Your task to perform on an android device: check out phone information Image 0: 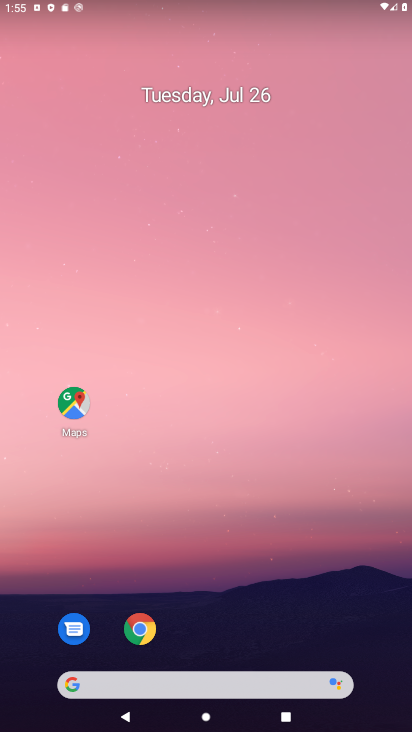
Step 0: drag from (381, 659) to (299, 327)
Your task to perform on an android device: check out phone information Image 1: 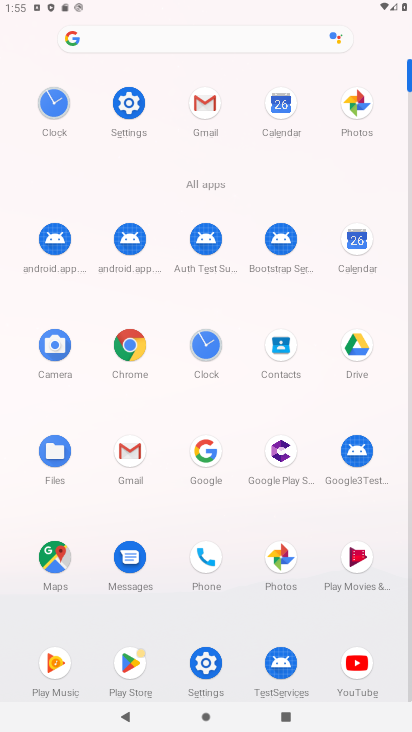
Step 1: click (203, 665)
Your task to perform on an android device: check out phone information Image 2: 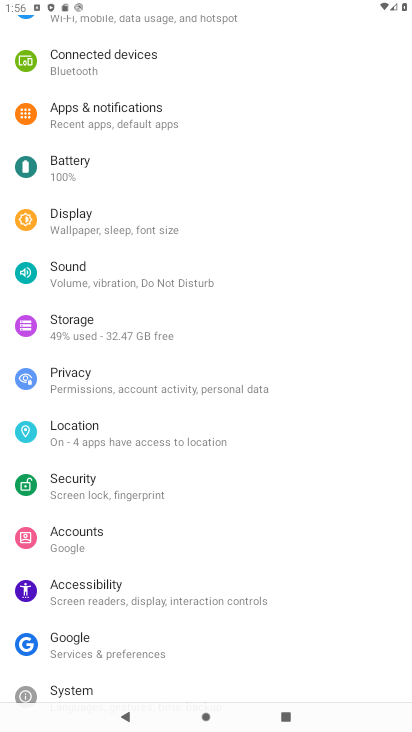
Step 2: drag from (207, 661) to (247, 313)
Your task to perform on an android device: check out phone information Image 3: 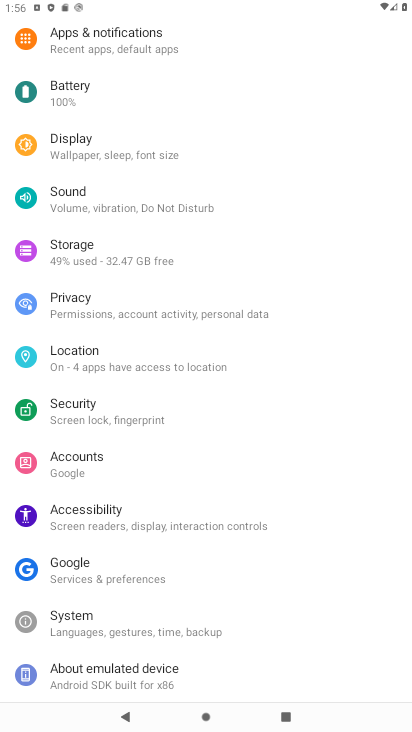
Step 3: click (106, 673)
Your task to perform on an android device: check out phone information Image 4: 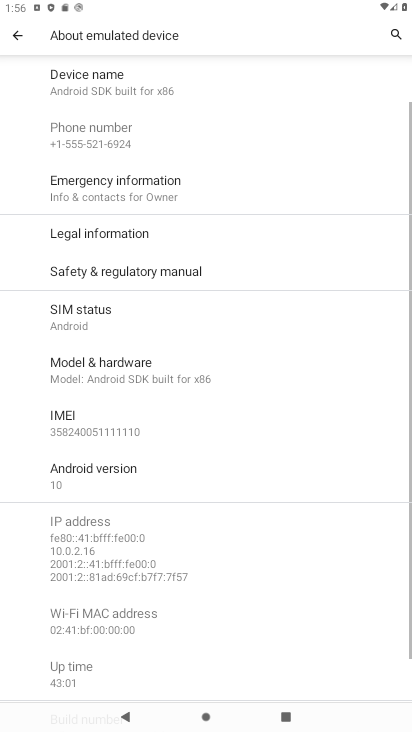
Step 4: task complete